Your task to perform on an android device: Open calendar and show me the first week of next month Image 0: 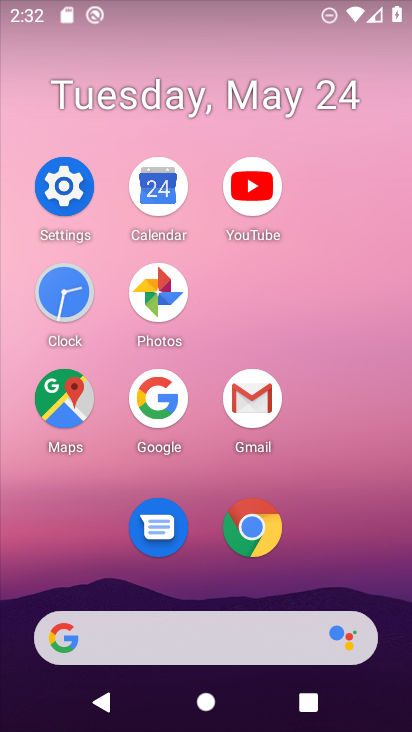
Step 0: click (177, 183)
Your task to perform on an android device: Open calendar and show me the first week of next month Image 1: 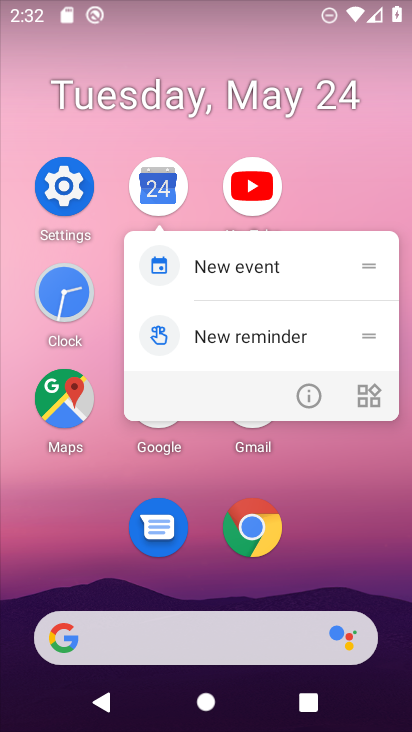
Step 1: click (177, 184)
Your task to perform on an android device: Open calendar and show me the first week of next month Image 2: 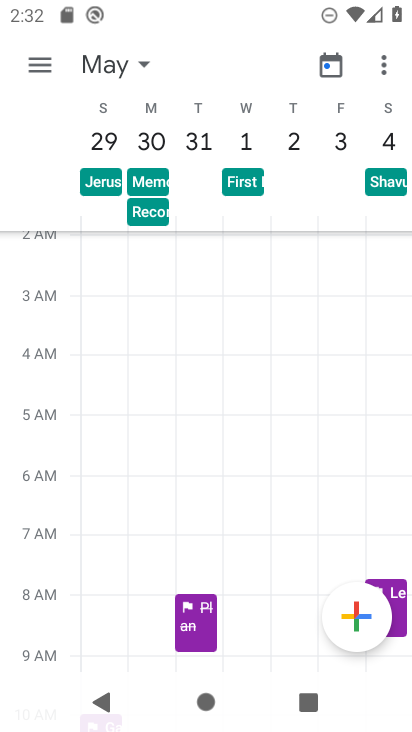
Step 2: click (117, 60)
Your task to perform on an android device: Open calendar and show me the first week of next month Image 3: 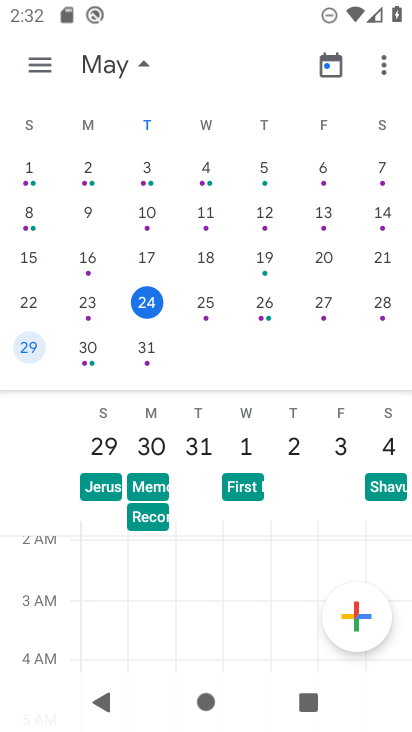
Step 3: drag from (377, 246) to (4, 189)
Your task to perform on an android device: Open calendar and show me the first week of next month Image 4: 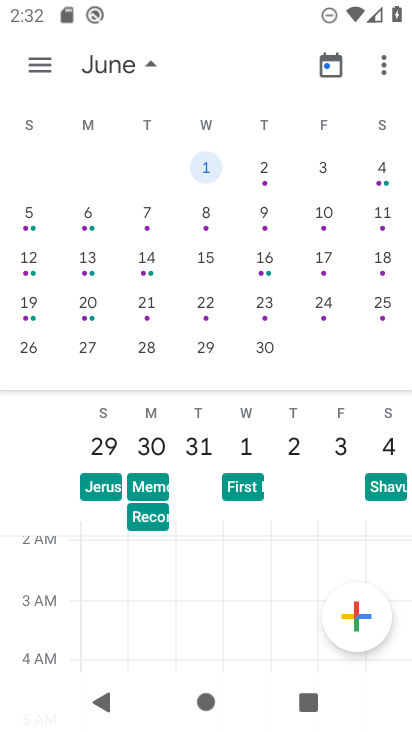
Step 4: click (45, 69)
Your task to perform on an android device: Open calendar and show me the first week of next month Image 5: 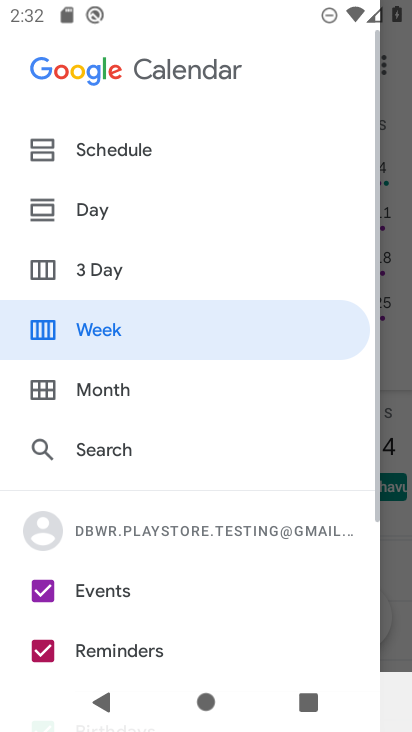
Step 5: click (146, 321)
Your task to perform on an android device: Open calendar and show me the first week of next month Image 6: 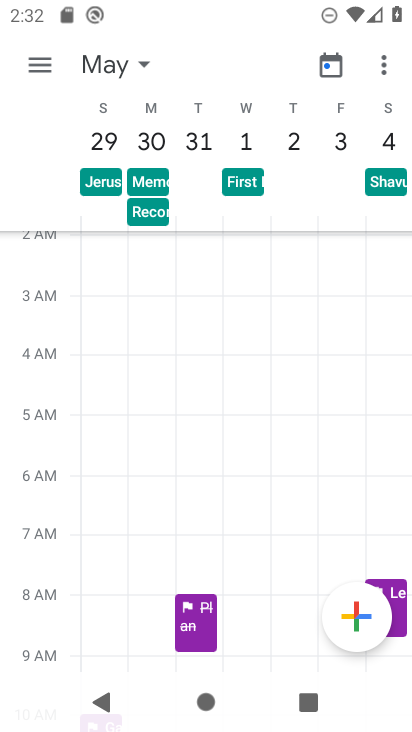
Step 6: task complete